Your task to perform on an android device: Go to Google maps Image 0: 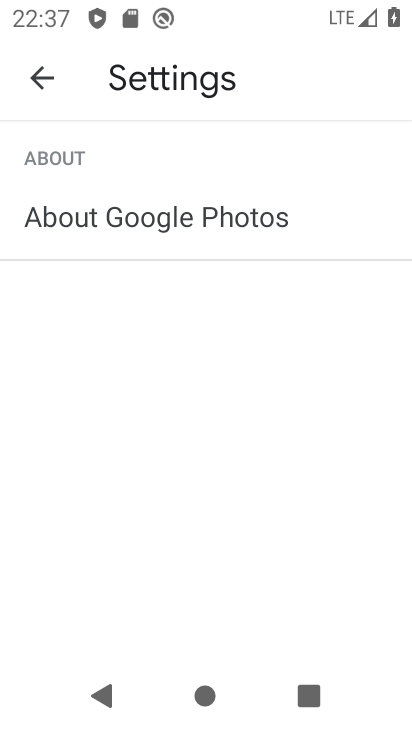
Step 0: press home button
Your task to perform on an android device: Go to Google maps Image 1: 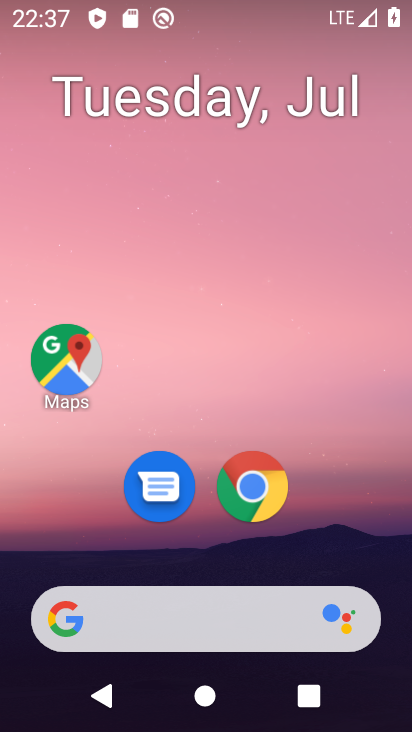
Step 1: drag from (358, 539) to (406, 205)
Your task to perform on an android device: Go to Google maps Image 2: 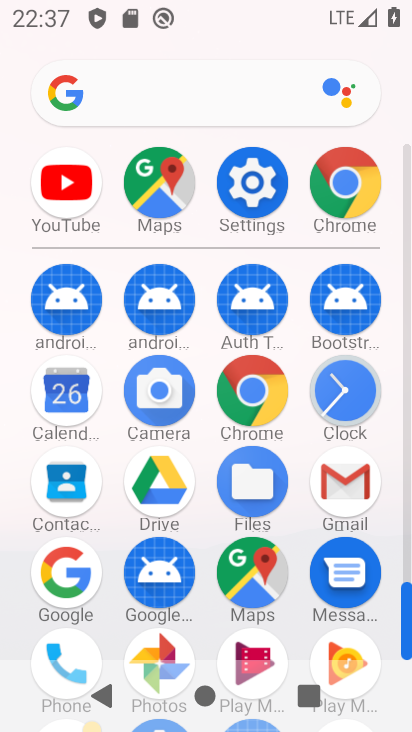
Step 2: click (262, 568)
Your task to perform on an android device: Go to Google maps Image 3: 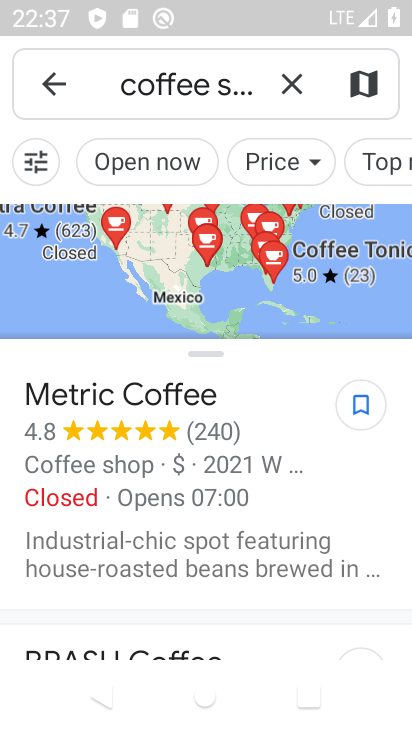
Step 3: task complete